Your task to perform on an android device: check google app version Image 0: 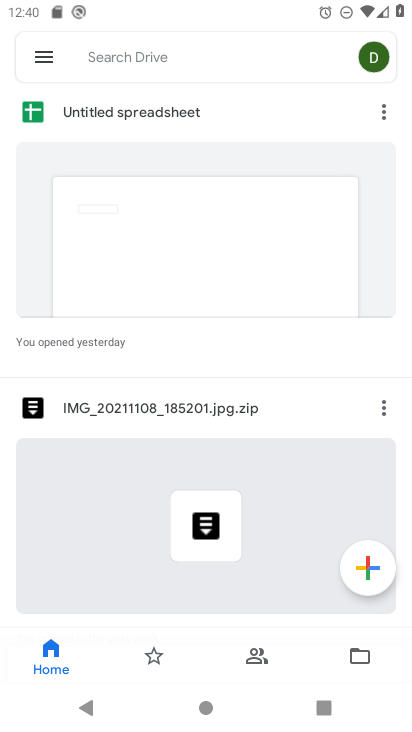
Step 0: press home button
Your task to perform on an android device: check google app version Image 1: 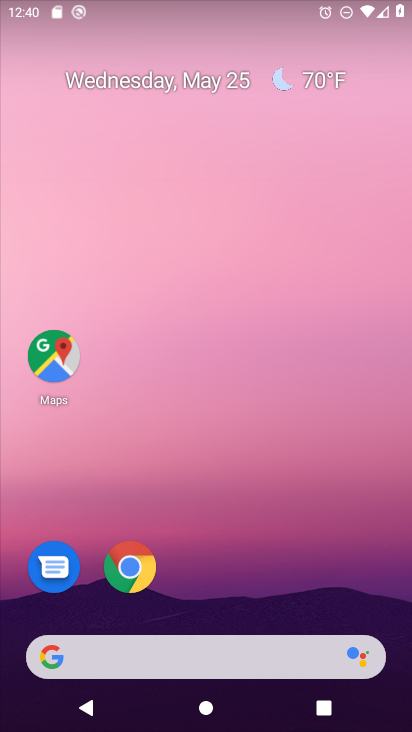
Step 1: drag from (397, 648) to (371, 175)
Your task to perform on an android device: check google app version Image 2: 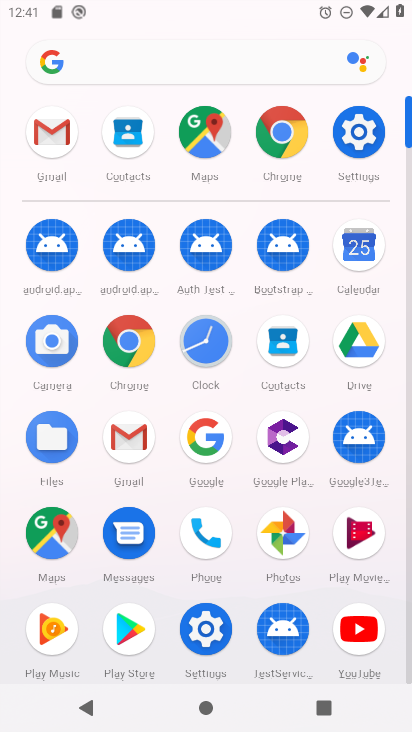
Step 2: click (205, 439)
Your task to perform on an android device: check google app version Image 3: 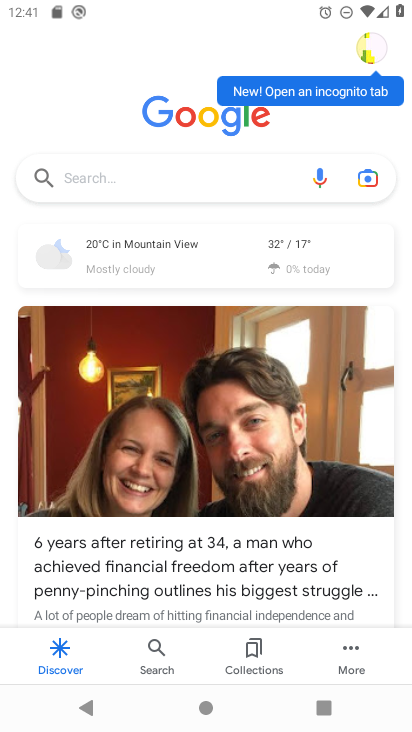
Step 3: click (352, 658)
Your task to perform on an android device: check google app version Image 4: 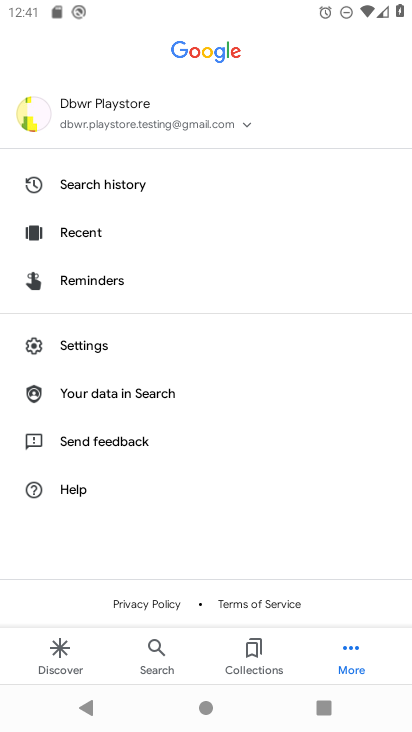
Step 4: click (77, 340)
Your task to perform on an android device: check google app version Image 5: 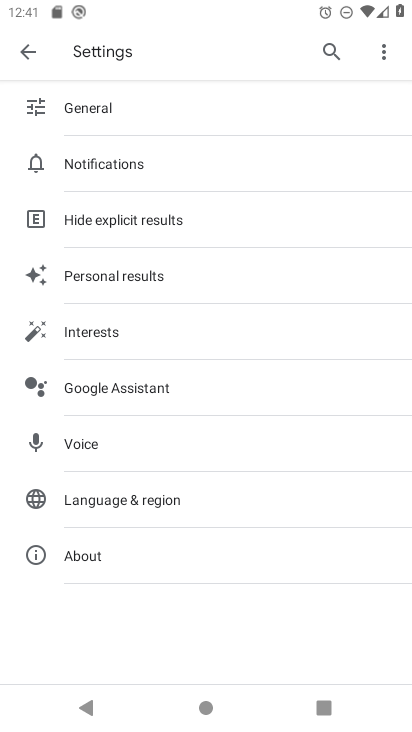
Step 5: click (88, 556)
Your task to perform on an android device: check google app version Image 6: 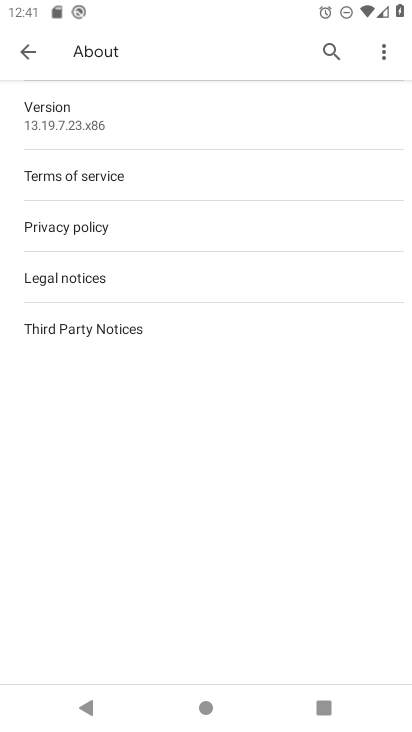
Step 6: click (76, 125)
Your task to perform on an android device: check google app version Image 7: 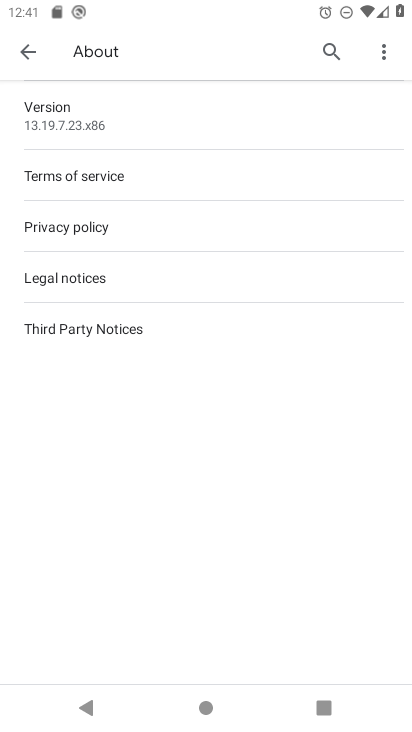
Step 7: task complete